Your task to perform on an android device: Go to Google maps Image 0: 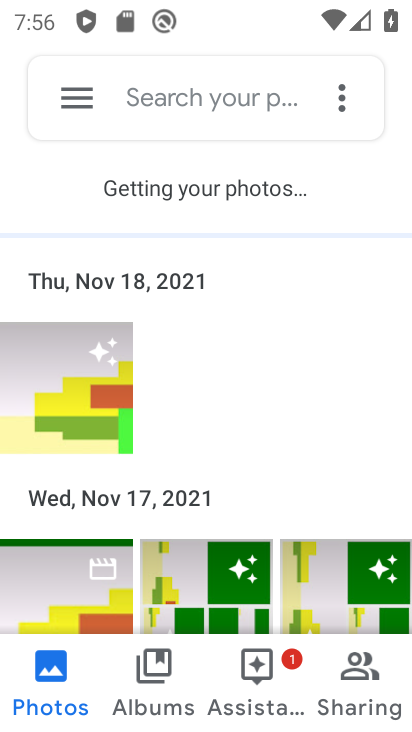
Step 0: press home button
Your task to perform on an android device: Go to Google maps Image 1: 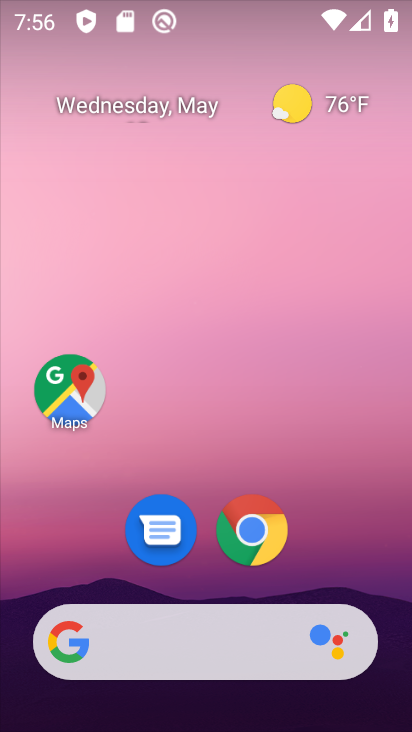
Step 1: click (65, 387)
Your task to perform on an android device: Go to Google maps Image 2: 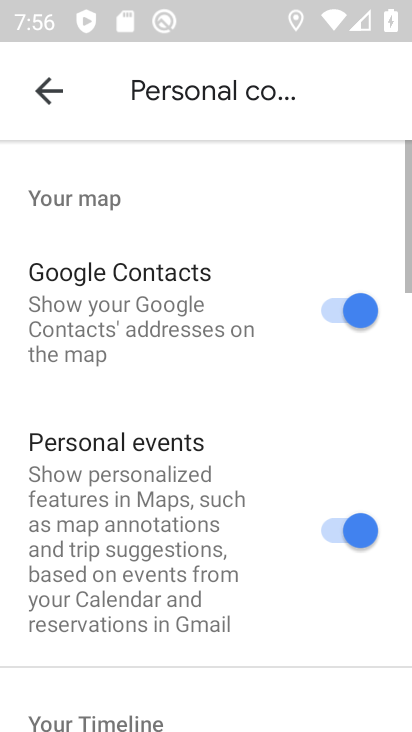
Step 2: click (48, 95)
Your task to perform on an android device: Go to Google maps Image 3: 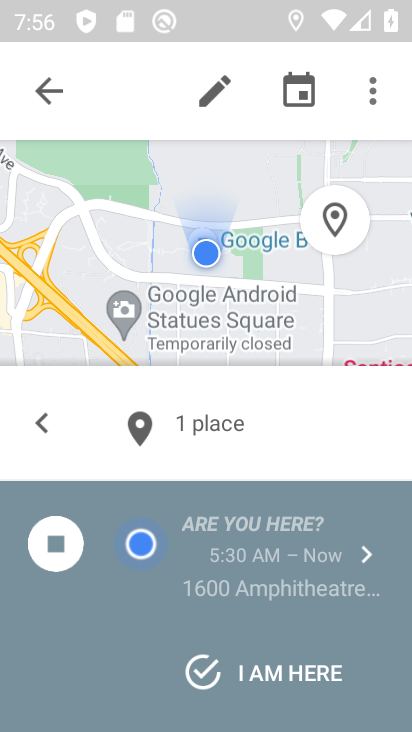
Step 3: click (46, 95)
Your task to perform on an android device: Go to Google maps Image 4: 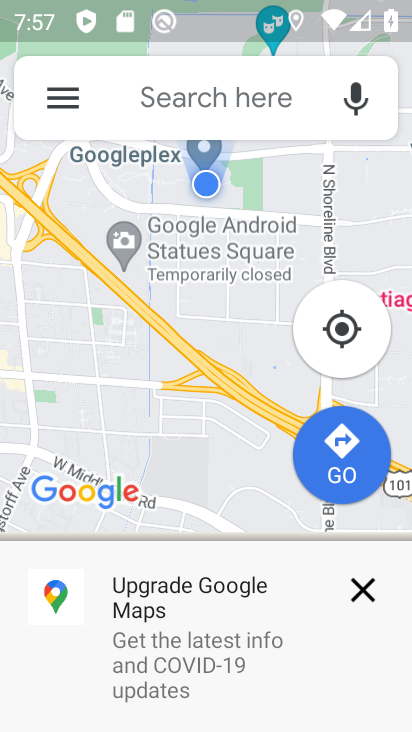
Step 4: task complete